Your task to perform on an android device: turn on bluetooth scan Image 0: 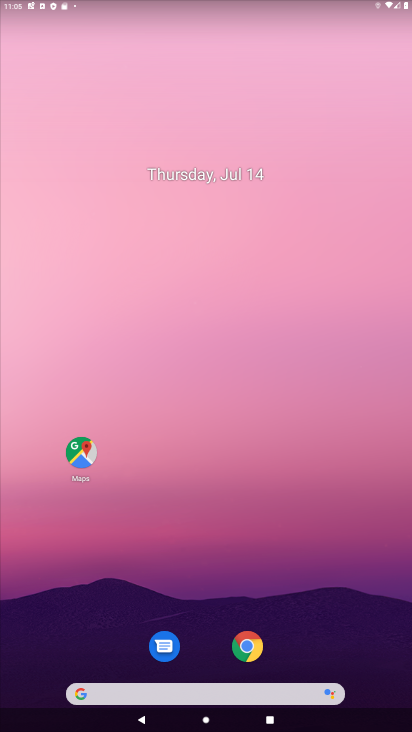
Step 0: drag from (209, 571) to (209, 216)
Your task to perform on an android device: turn on bluetooth scan Image 1: 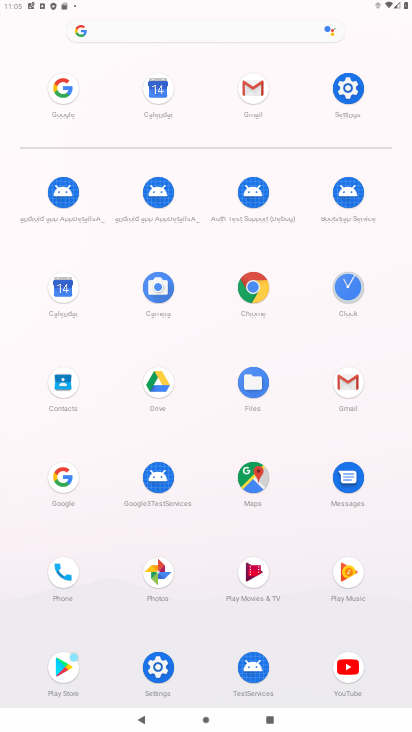
Step 1: click (333, 91)
Your task to perform on an android device: turn on bluetooth scan Image 2: 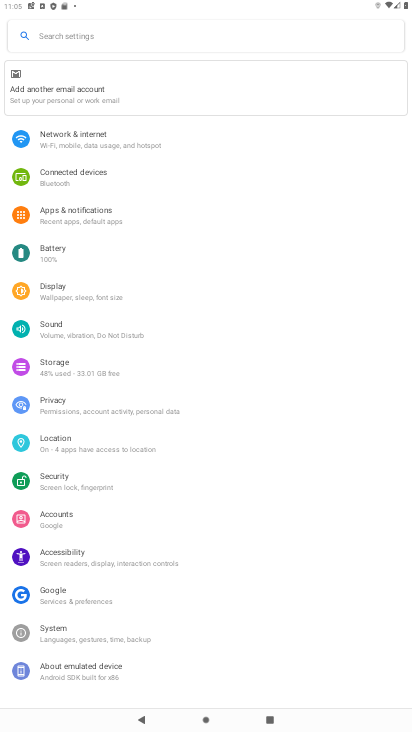
Step 2: click (81, 446)
Your task to perform on an android device: turn on bluetooth scan Image 3: 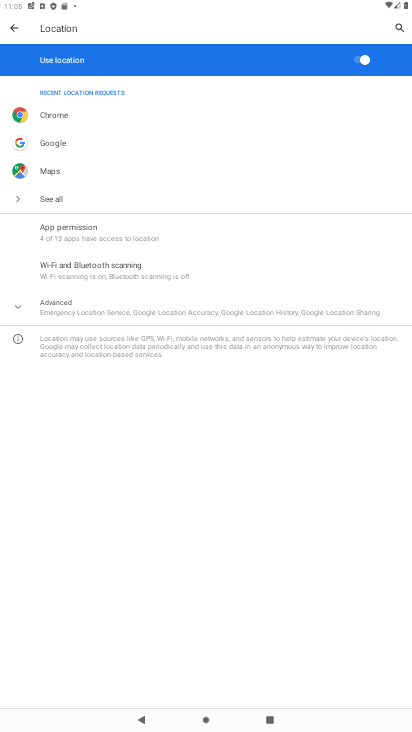
Step 3: click (161, 279)
Your task to perform on an android device: turn on bluetooth scan Image 4: 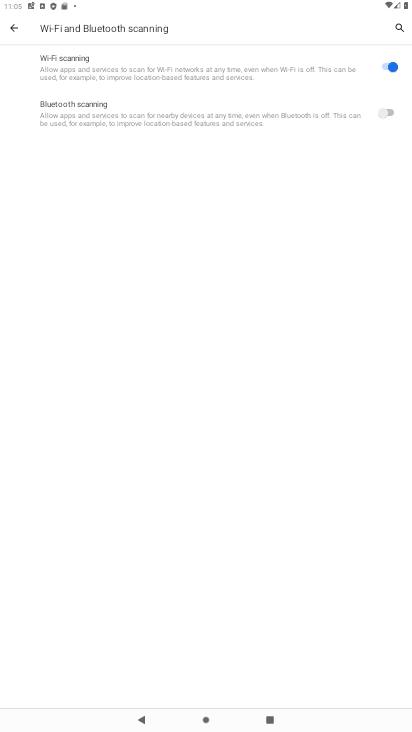
Step 4: click (385, 106)
Your task to perform on an android device: turn on bluetooth scan Image 5: 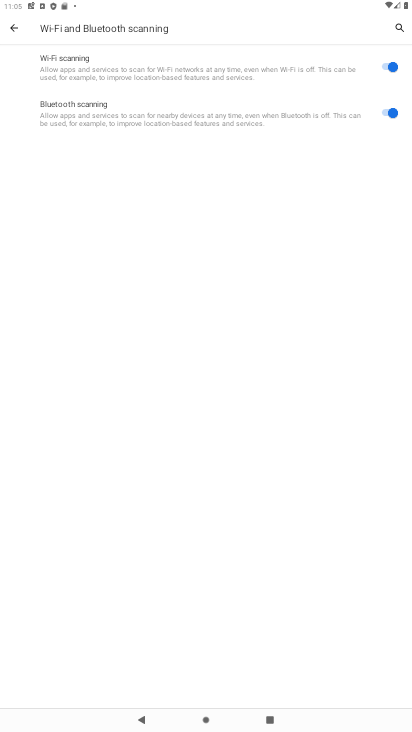
Step 5: task complete